Your task to perform on an android device: Turn off the flashlight Image 0: 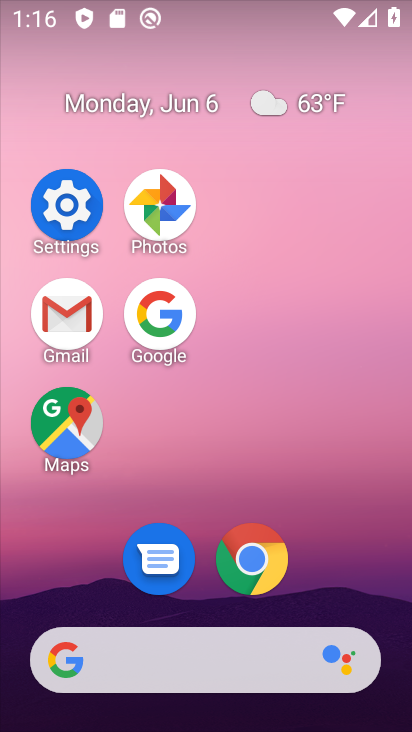
Step 0: drag from (263, 6) to (276, 276)
Your task to perform on an android device: Turn off the flashlight Image 1: 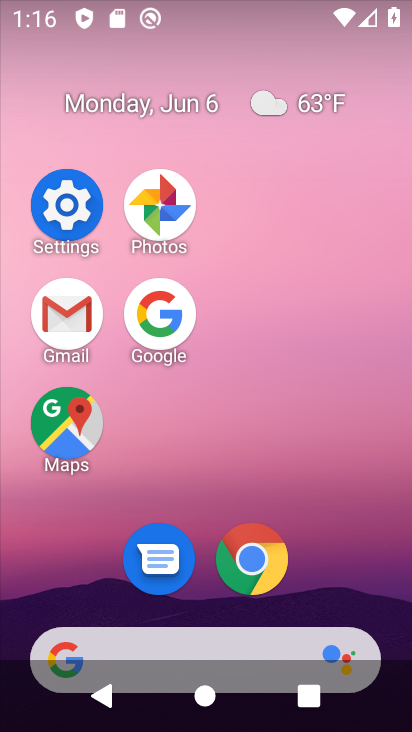
Step 1: task complete